Your task to perform on an android device: open a new tab in the chrome app Image 0: 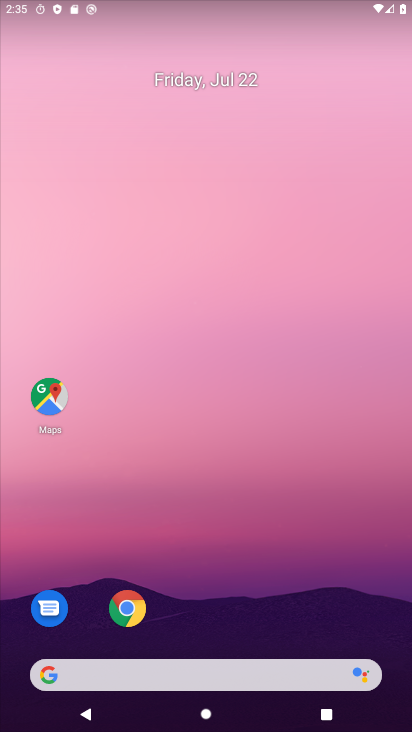
Step 0: click (124, 612)
Your task to perform on an android device: open a new tab in the chrome app Image 1: 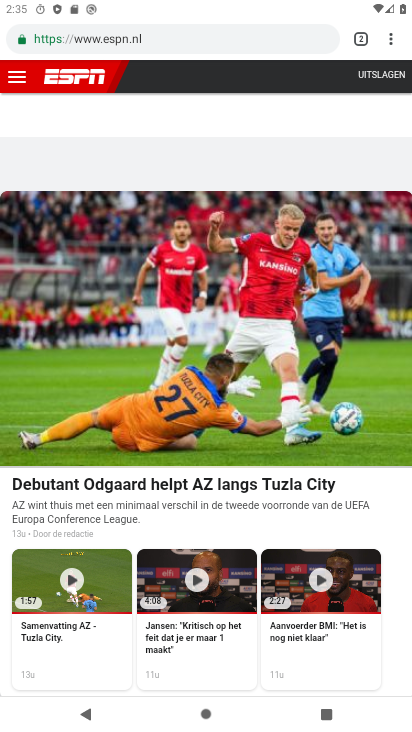
Step 1: click (387, 43)
Your task to perform on an android device: open a new tab in the chrome app Image 2: 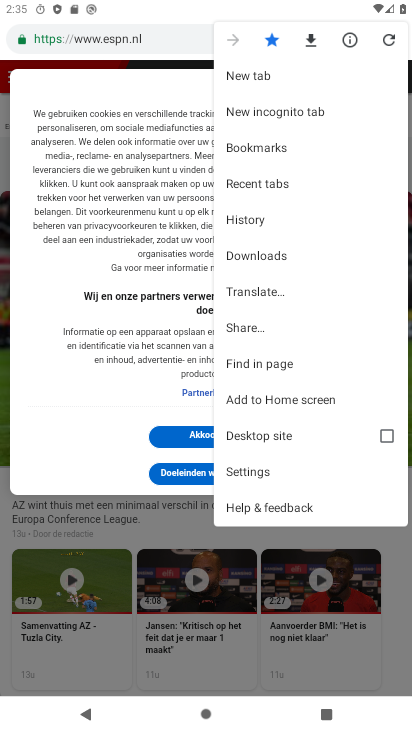
Step 2: click (261, 77)
Your task to perform on an android device: open a new tab in the chrome app Image 3: 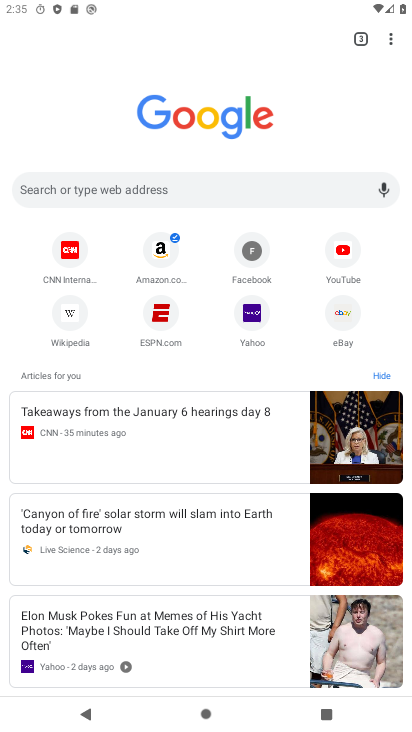
Step 3: task complete